Your task to perform on an android device: install app "Messages" Image 0: 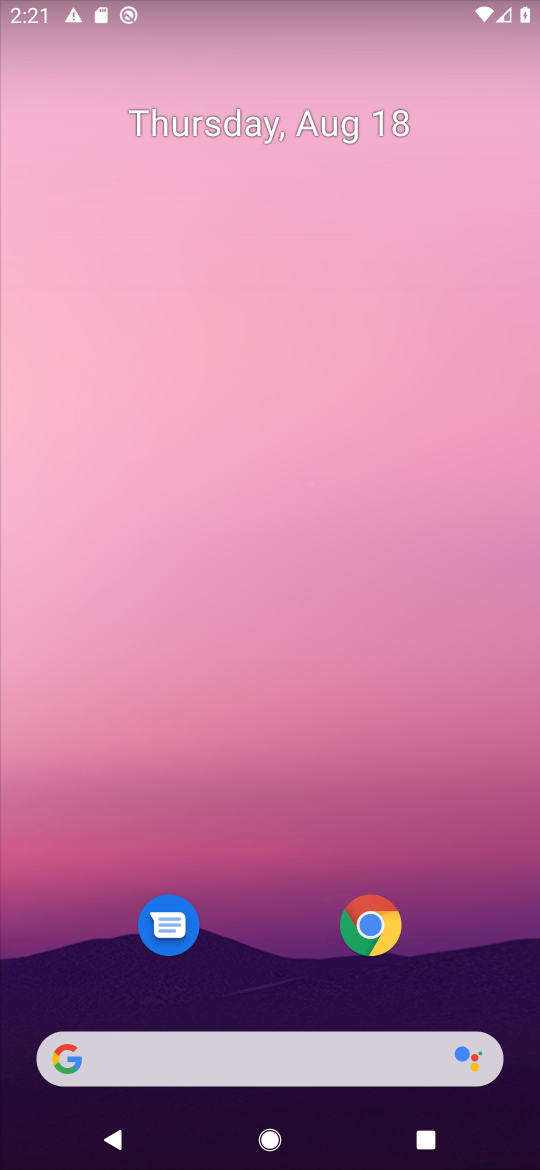
Step 0: drag from (219, 488) to (217, 425)
Your task to perform on an android device: install app "Messages" Image 1: 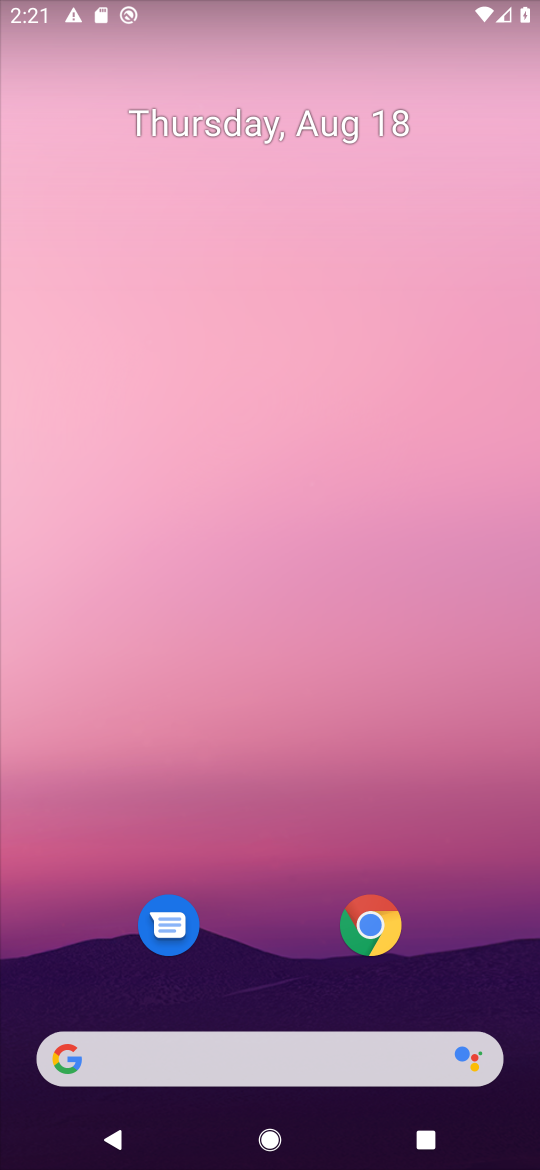
Step 1: drag from (287, 976) to (323, 19)
Your task to perform on an android device: install app "Messages" Image 2: 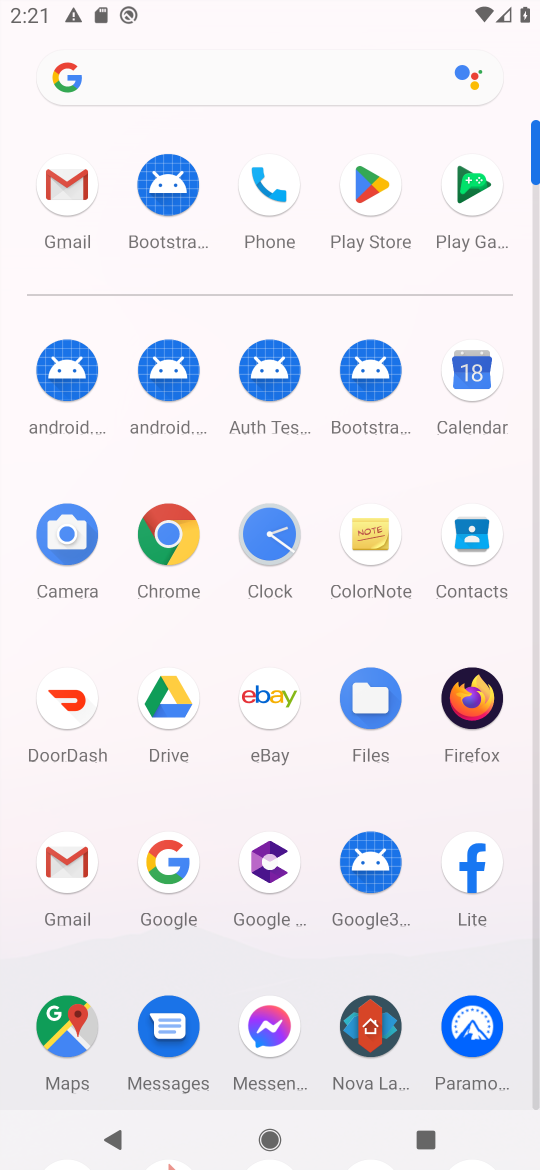
Step 2: click (366, 216)
Your task to perform on an android device: install app "Messages" Image 3: 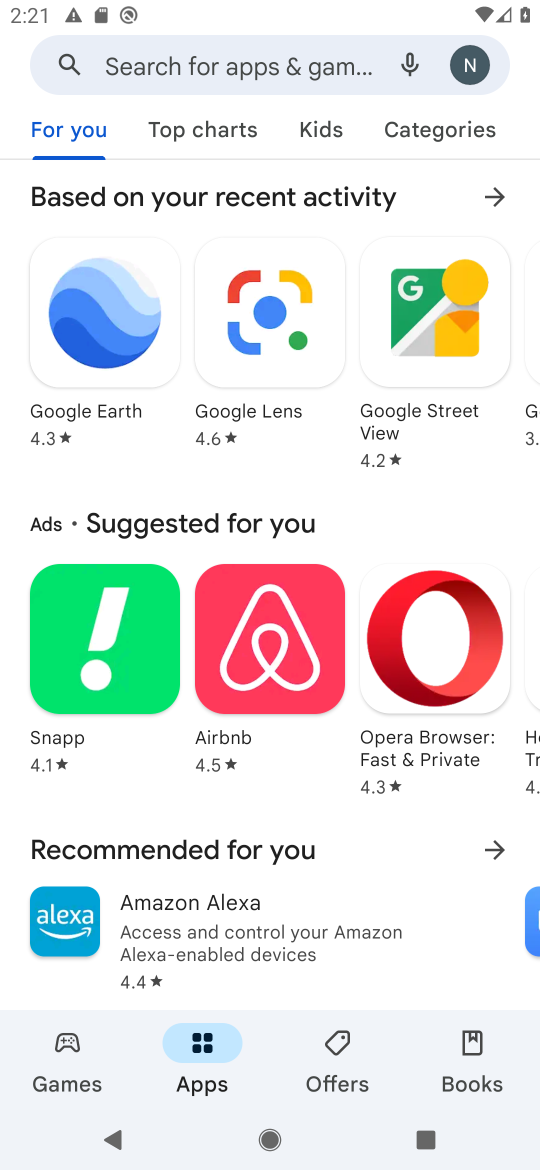
Step 3: click (190, 84)
Your task to perform on an android device: install app "Messages" Image 4: 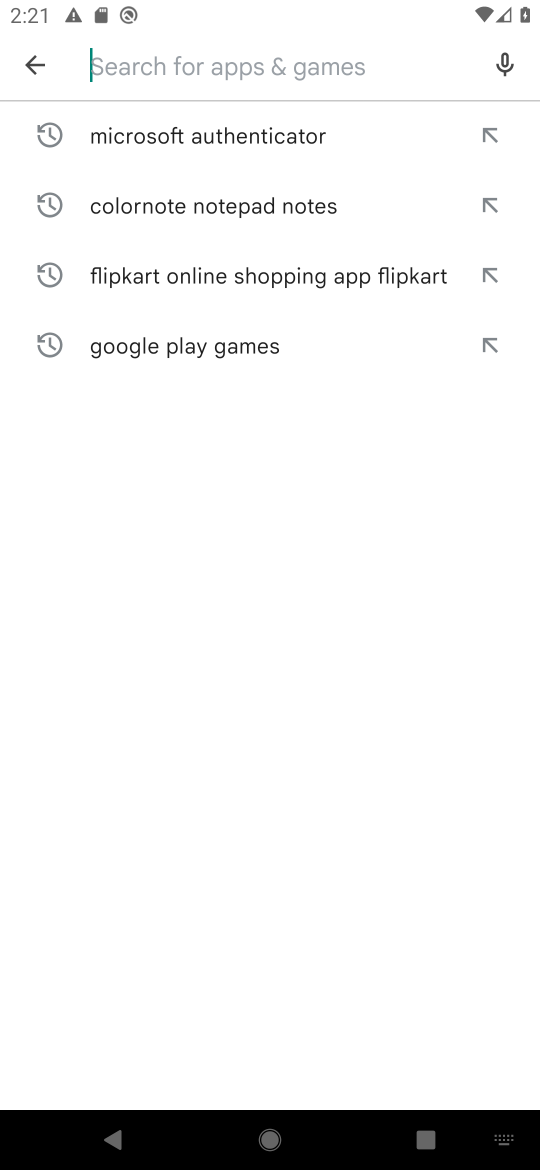
Step 4: type "Messages"
Your task to perform on an android device: install app "Messages" Image 5: 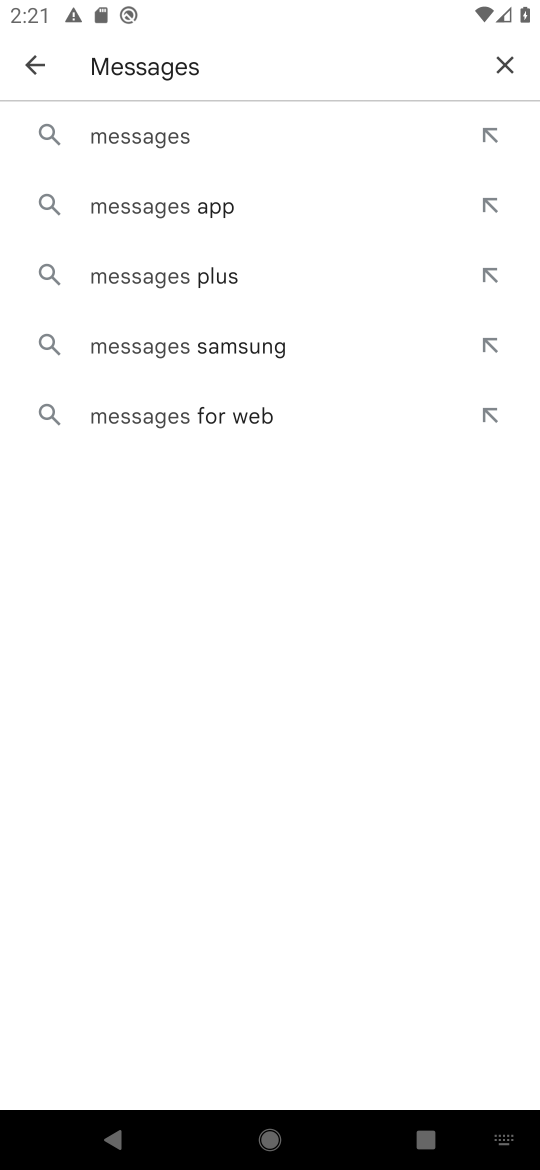
Step 5: click (177, 137)
Your task to perform on an android device: install app "Messages" Image 6: 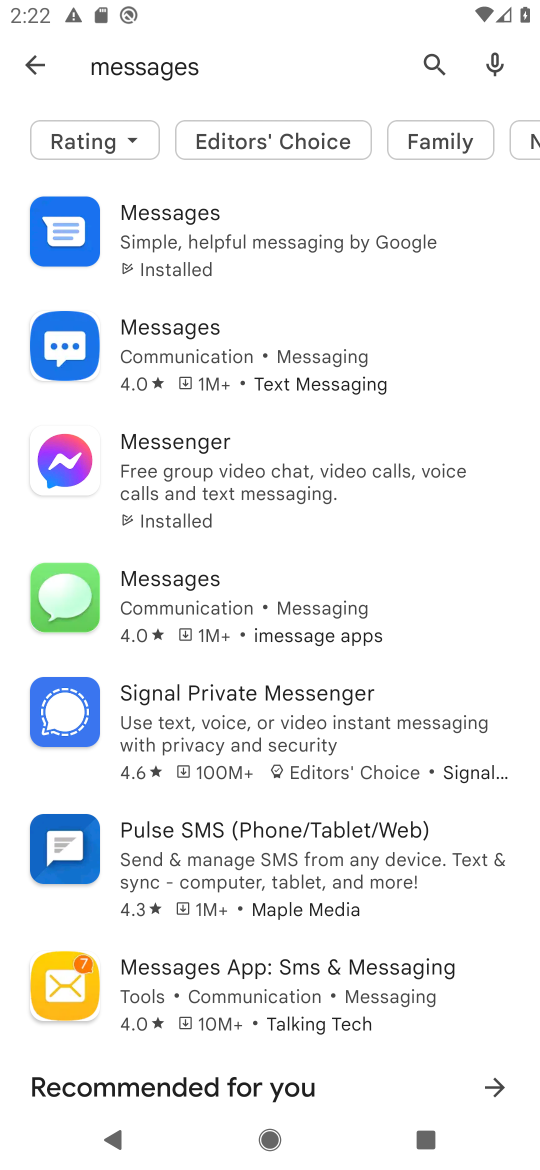
Step 6: click (166, 229)
Your task to perform on an android device: install app "Messages" Image 7: 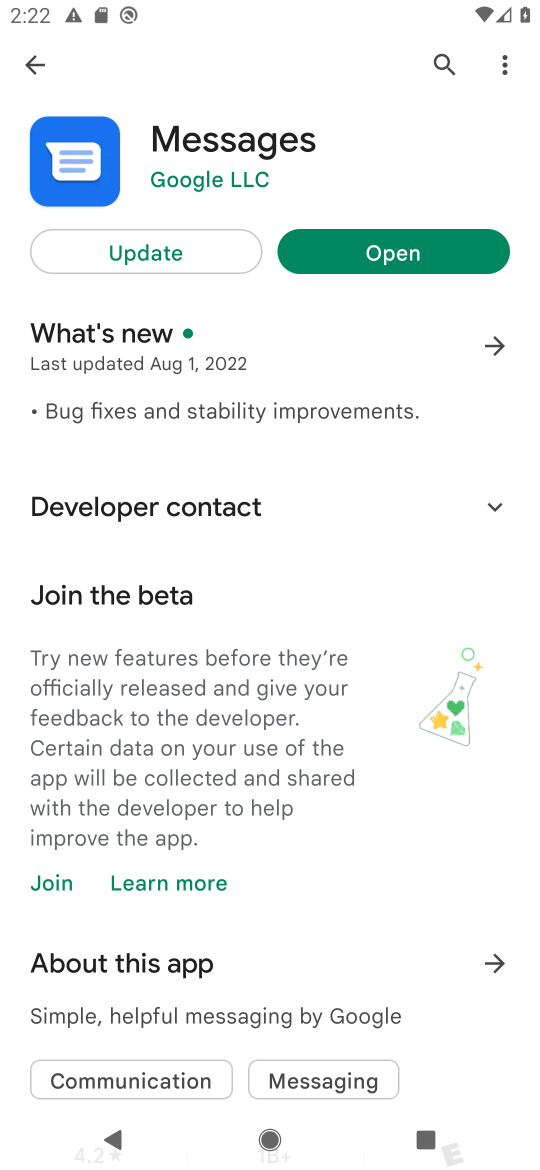
Step 7: task complete